Your task to perform on an android device: Go to location settings Image 0: 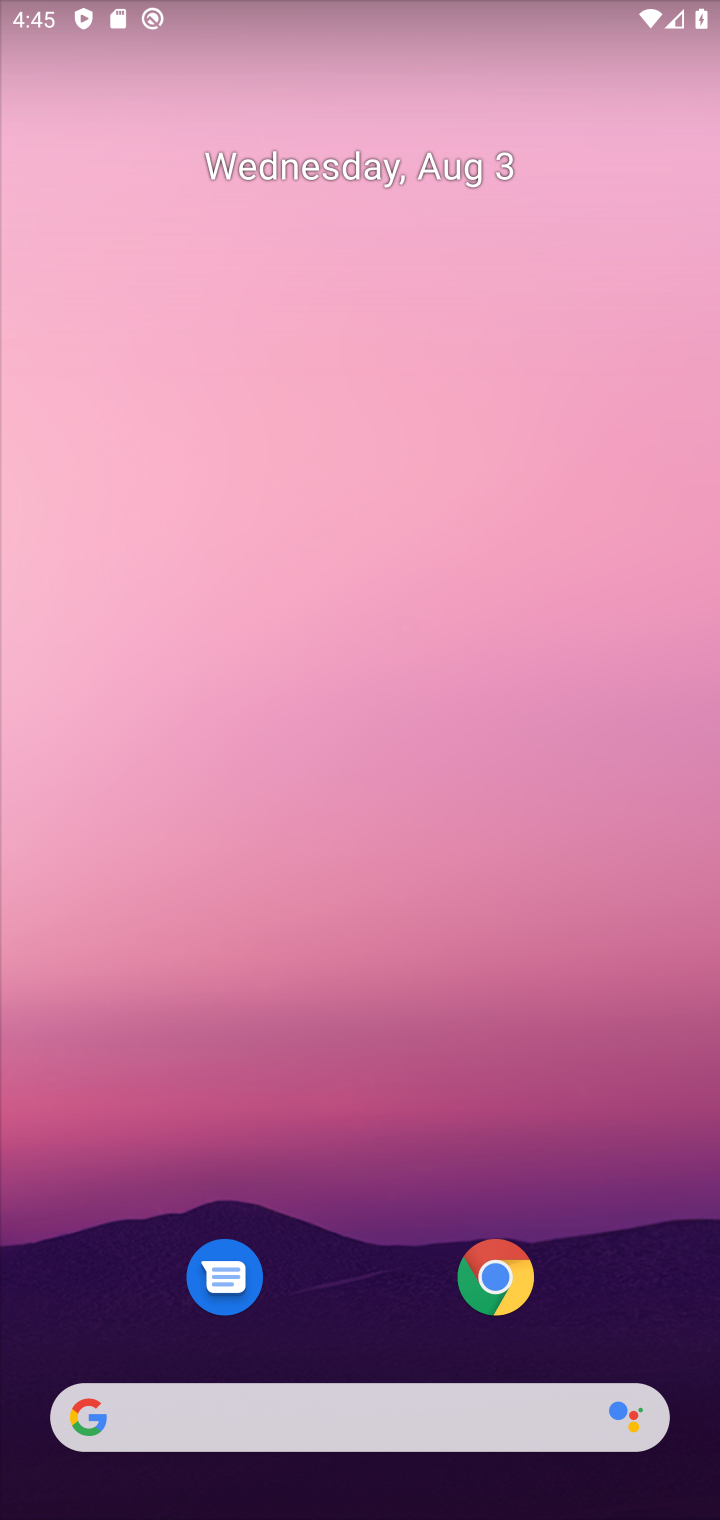
Step 0: drag from (261, 1108) to (346, 195)
Your task to perform on an android device: Go to location settings Image 1: 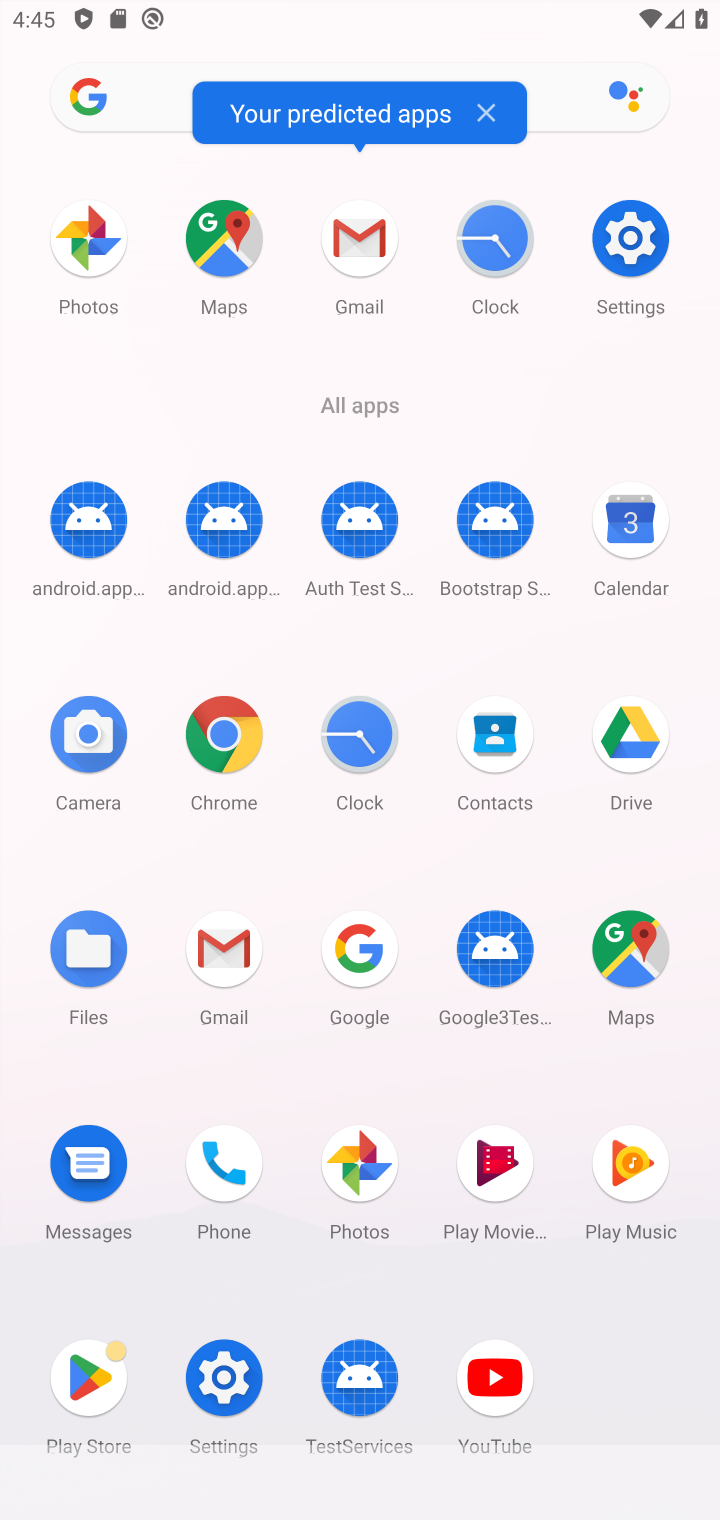
Step 1: click (624, 234)
Your task to perform on an android device: Go to location settings Image 2: 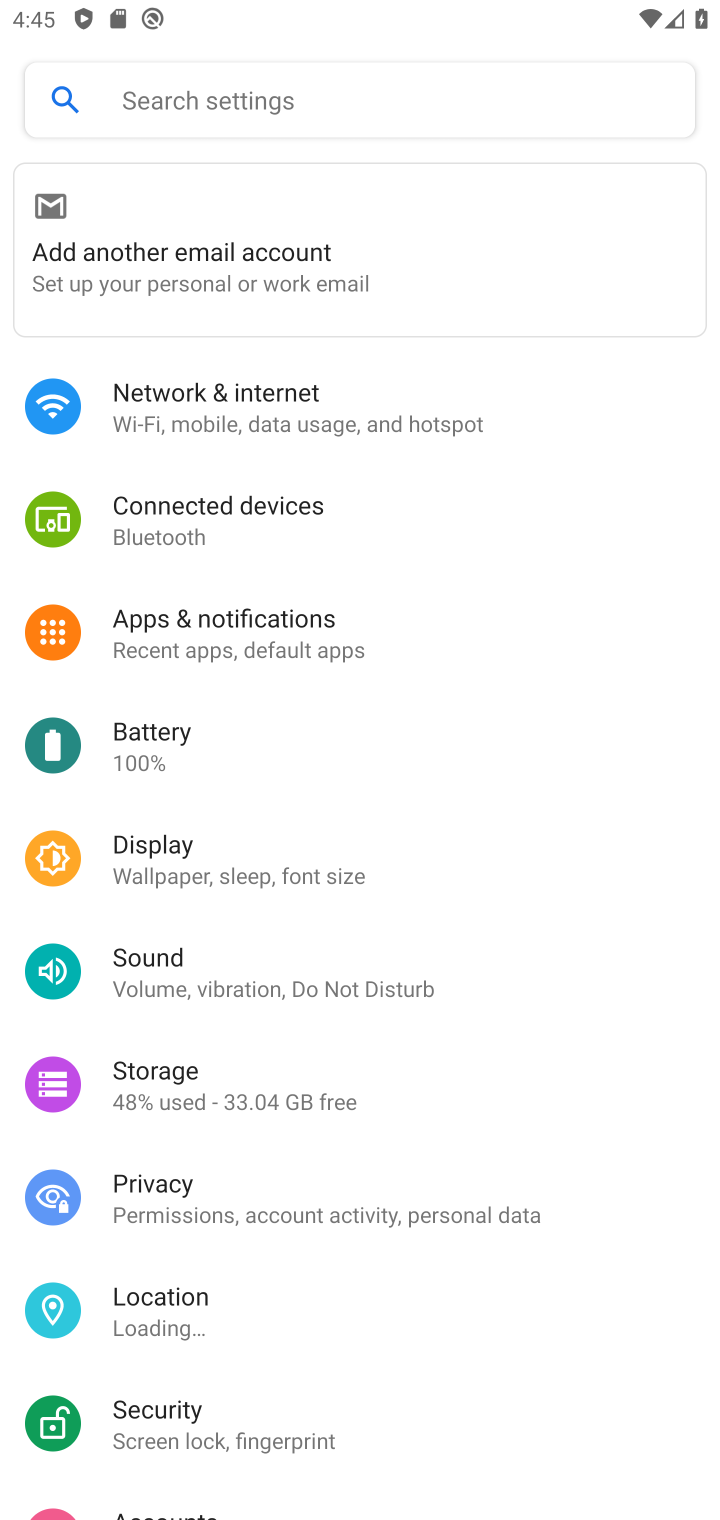
Step 2: click (189, 1316)
Your task to perform on an android device: Go to location settings Image 3: 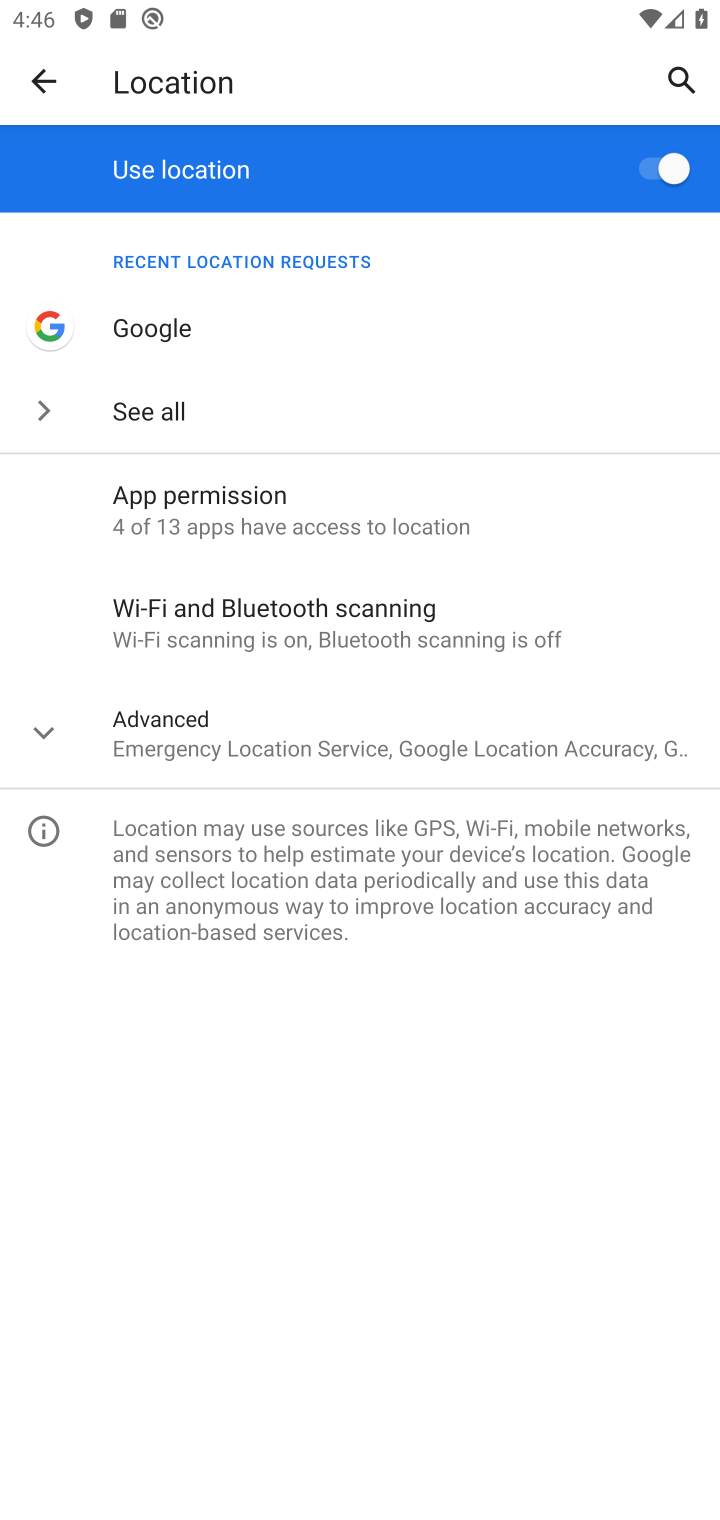
Step 3: task complete